Your task to perform on an android device: Find coffee shops on Maps Image 0: 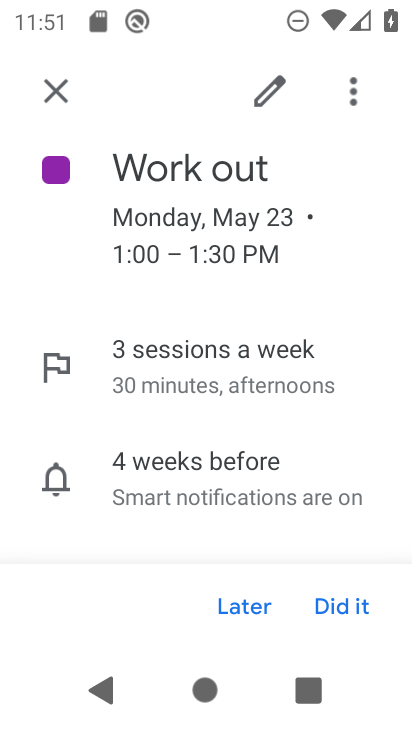
Step 0: press back button
Your task to perform on an android device: Find coffee shops on Maps Image 1: 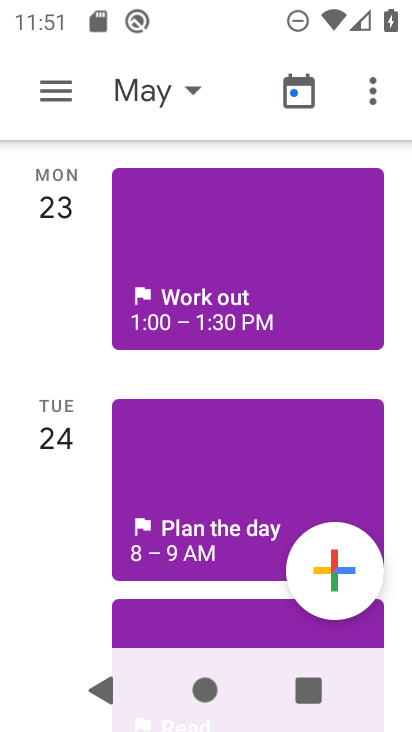
Step 1: press back button
Your task to perform on an android device: Find coffee shops on Maps Image 2: 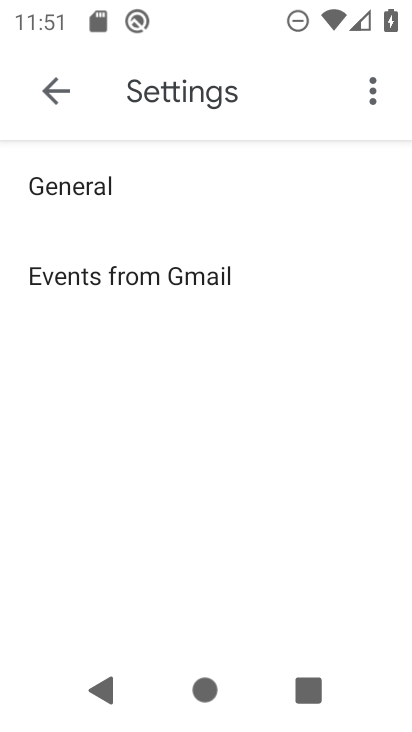
Step 2: press back button
Your task to perform on an android device: Find coffee shops on Maps Image 3: 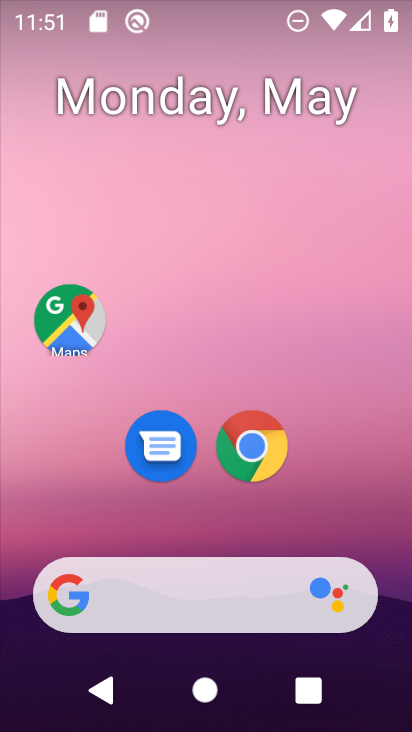
Step 3: drag from (329, 473) to (315, 216)
Your task to perform on an android device: Find coffee shops on Maps Image 4: 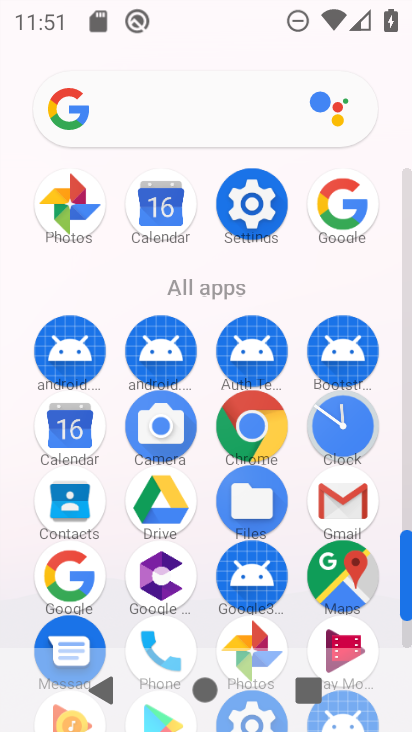
Step 4: click (342, 581)
Your task to perform on an android device: Find coffee shops on Maps Image 5: 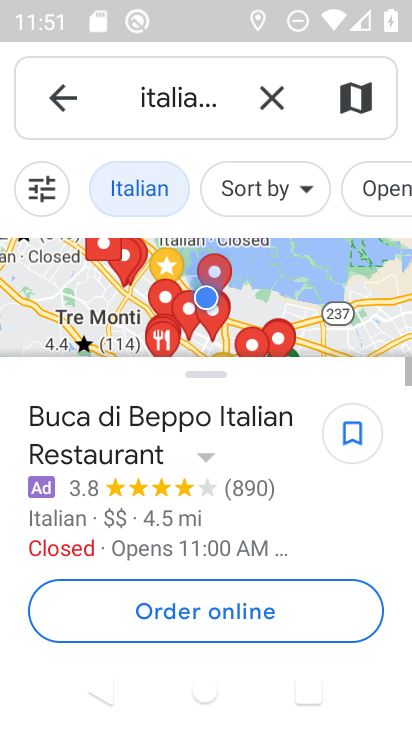
Step 5: click (272, 100)
Your task to perform on an android device: Find coffee shops on Maps Image 6: 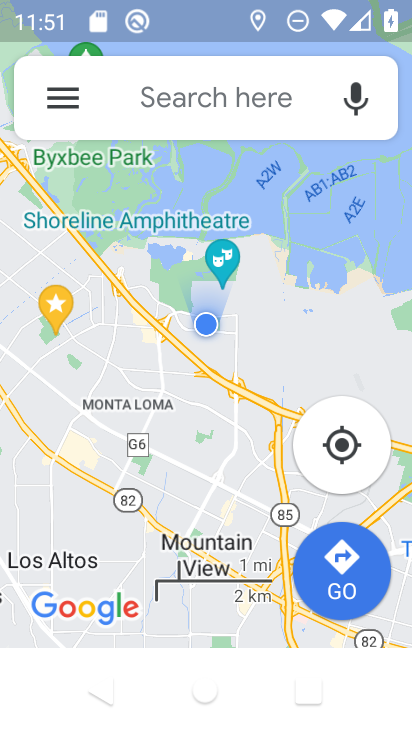
Step 6: click (208, 93)
Your task to perform on an android device: Find coffee shops on Maps Image 7: 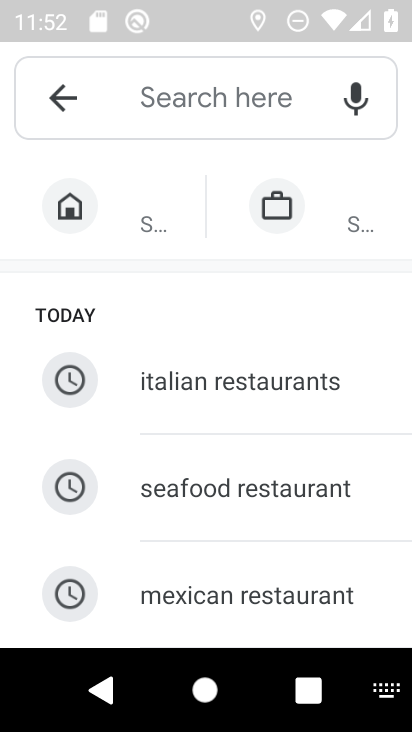
Step 7: type "coffee shops"
Your task to perform on an android device: Find coffee shops on Maps Image 8: 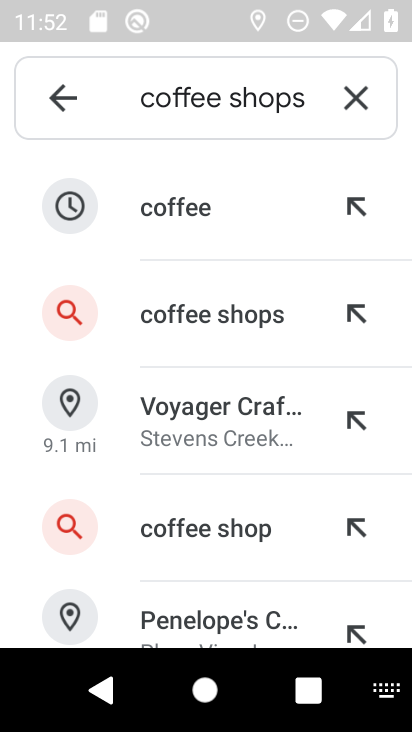
Step 8: click (271, 314)
Your task to perform on an android device: Find coffee shops on Maps Image 9: 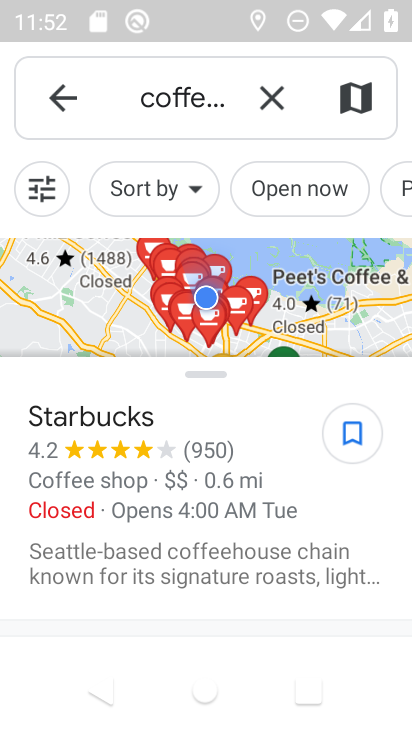
Step 9: task complete